Your task to perform on an android device: move an email to a new category in the gmail app Image 0: 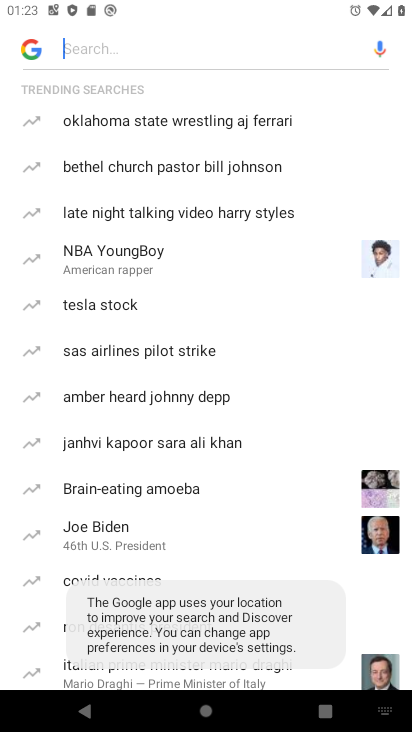
Step 0: press home button
Your task to perform on an android device: move an email to a new category in the gmail app Image 1: 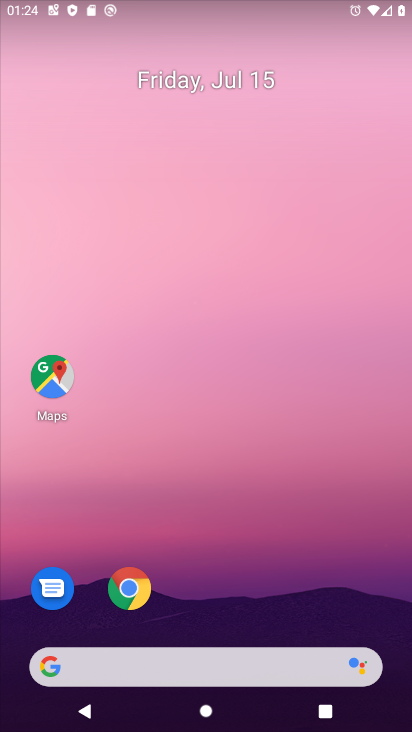
Step 1: drag from (378, 629) to (337, 176)
Your task to perform on an android device: move an email to a new category in the gmail app Image 2: 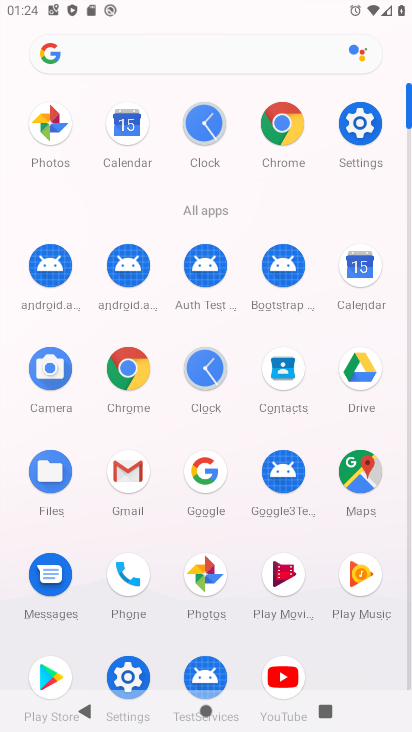
Step 2: click (126, 472)
Your task to perform on an android device: move an email to a new category in the gmail app Image 3: 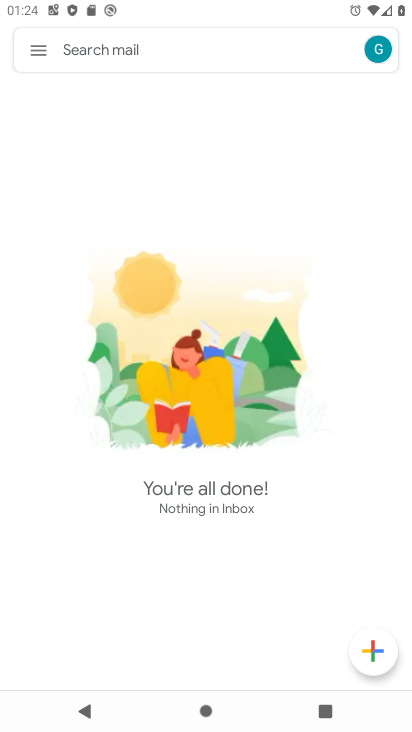
Step 3: click (40, 40)
Your task to perform on an android device: move an email to a new category in the gmail app Image 4: 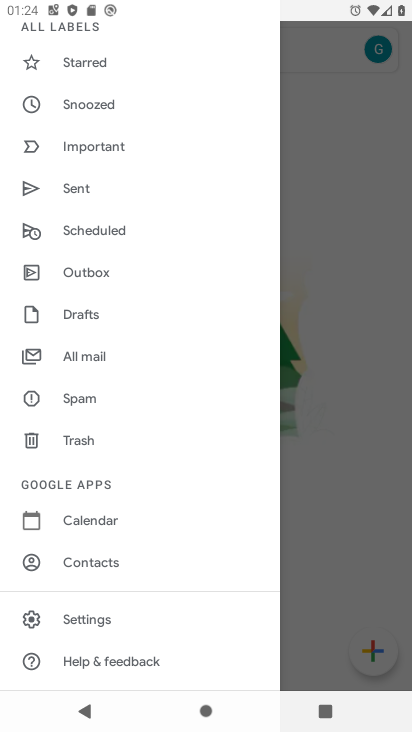
Step 4: click (78, 355)
Your task to perform on an android device: move an email to a new category in the gmail app Image 5: 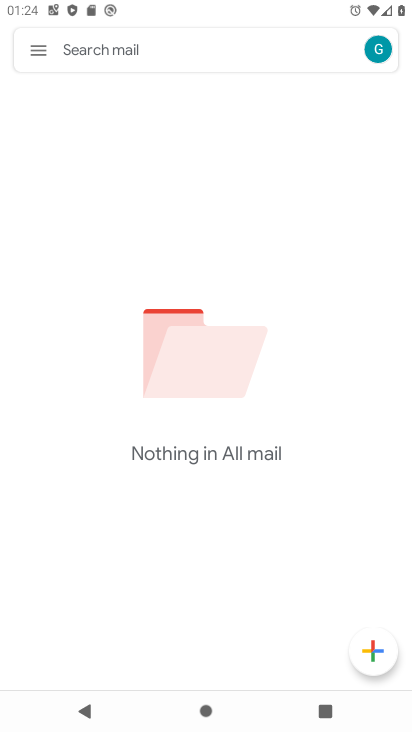
Step 5: task complete